Your task to perform on an android device: Add "jbl flip 4" to the cart on bestbuy Image 0: 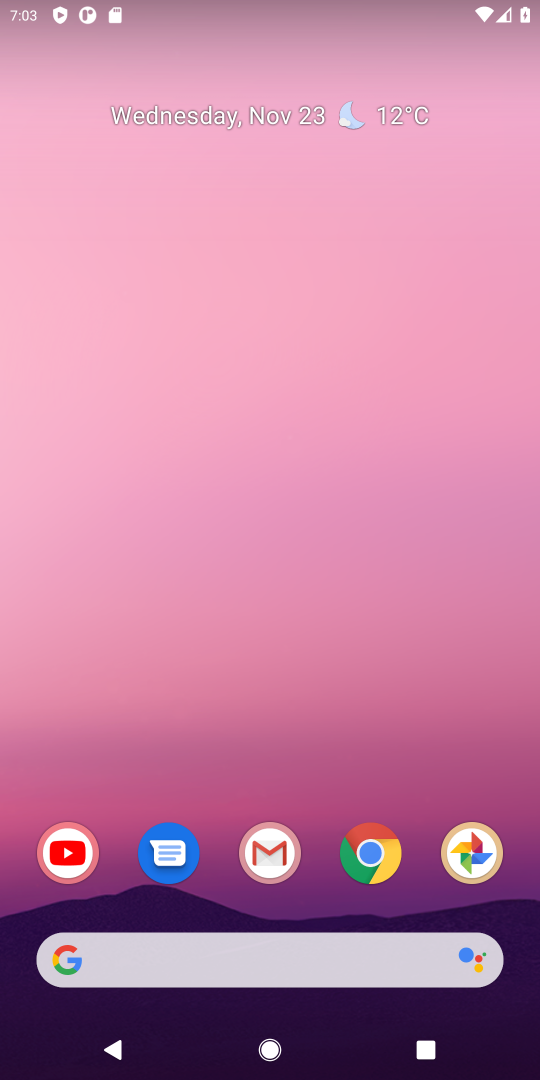
Step 0: click (367, 861)
Your task to perform on an android device: Add "jbl flip 4" to the cart on bestbuy Image 1: 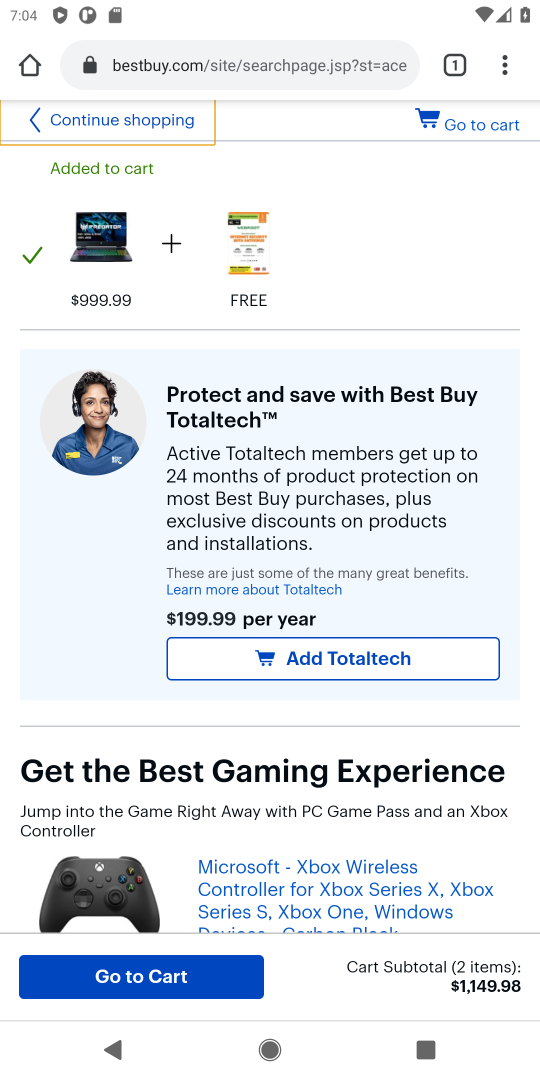
Step 1: drag from (334, 189) to (343, 467)
Your task to perform on an android device: Add "jbl flip 4" to the cart on bestbuy Image 2: 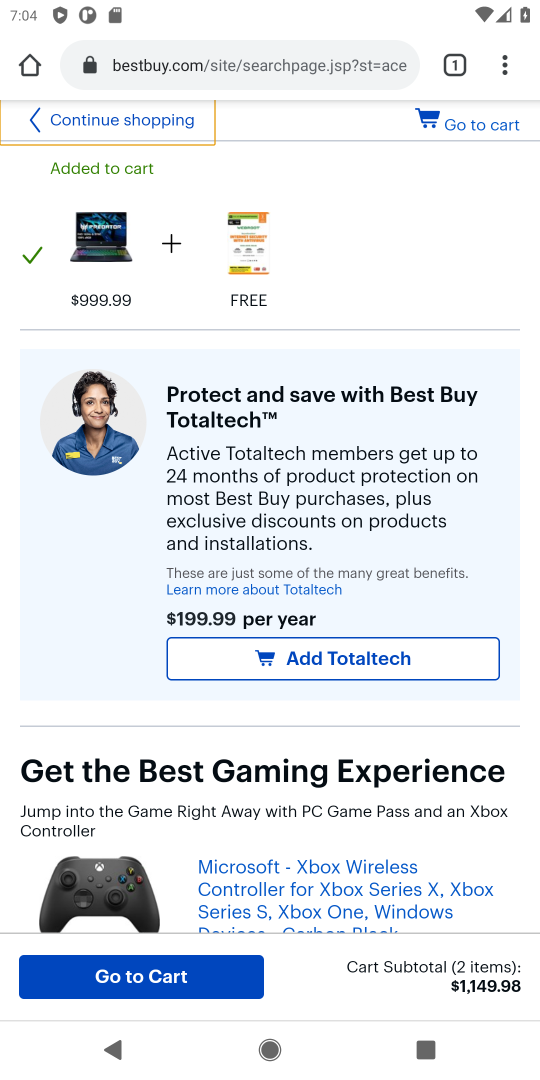
Step 2: click (163, 128)
Your task to perform on an android device: Add "jbl flip 4" to the cart on bestbuy Image 3: 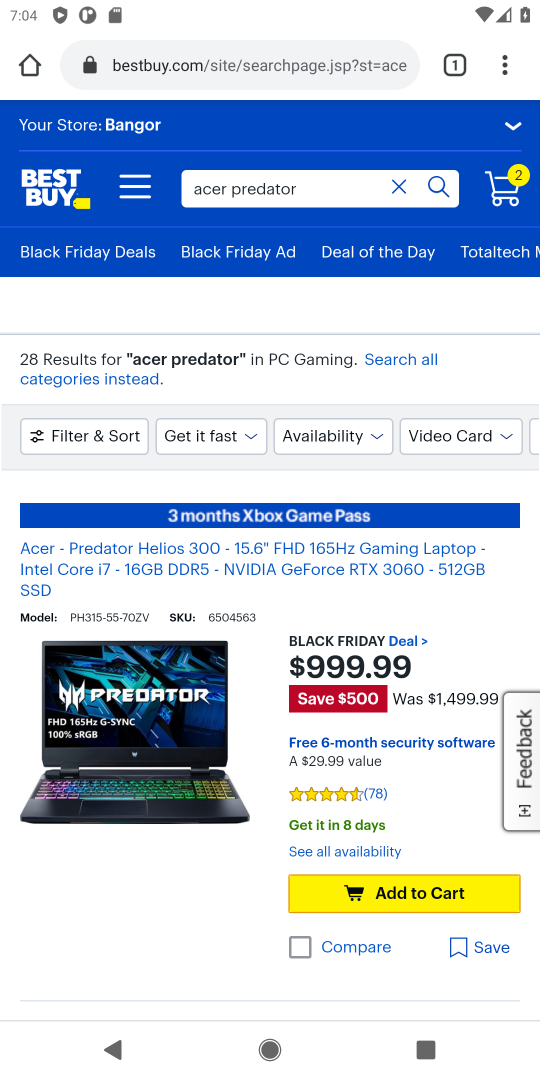
Step 3: click (400, 189)
Your task to perform on an android device: Add "jbl flip 4" to the cart on bestbuy Image 4: 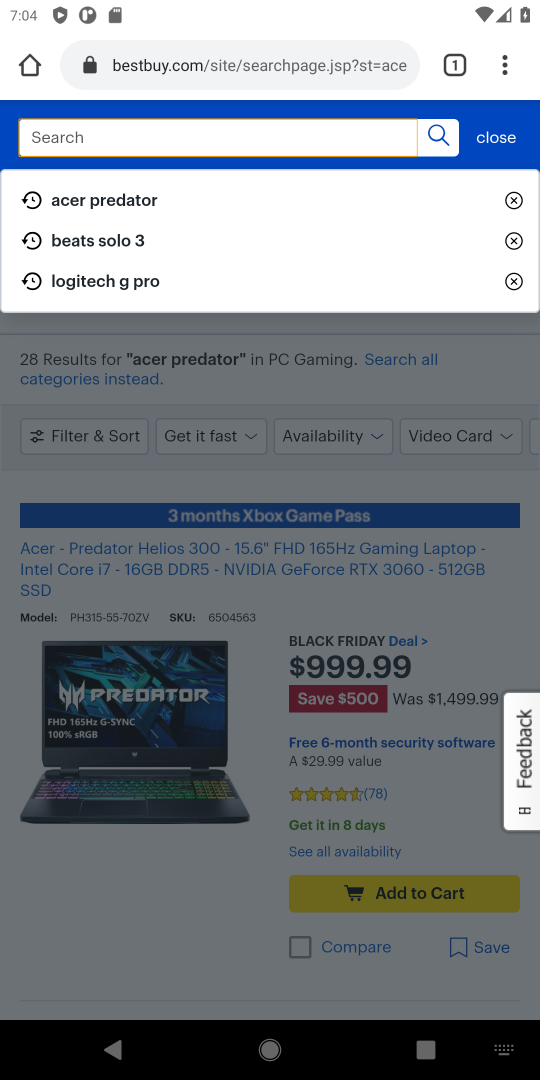
Step 4: type "jbl flip 4"
Your task to perform on an android device: Add "jbl flip 4" to the cart on bestbuy Image 5: 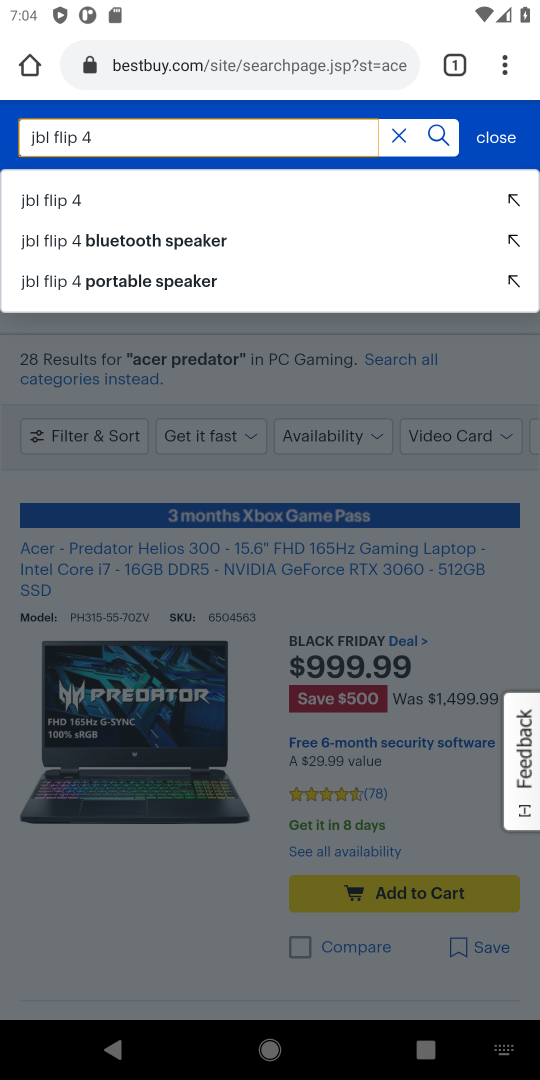
Step 5: click (33, 204)
Your task to perform on an android device: Add "jbl flip 4" to the cart on bestbuy Image 6: 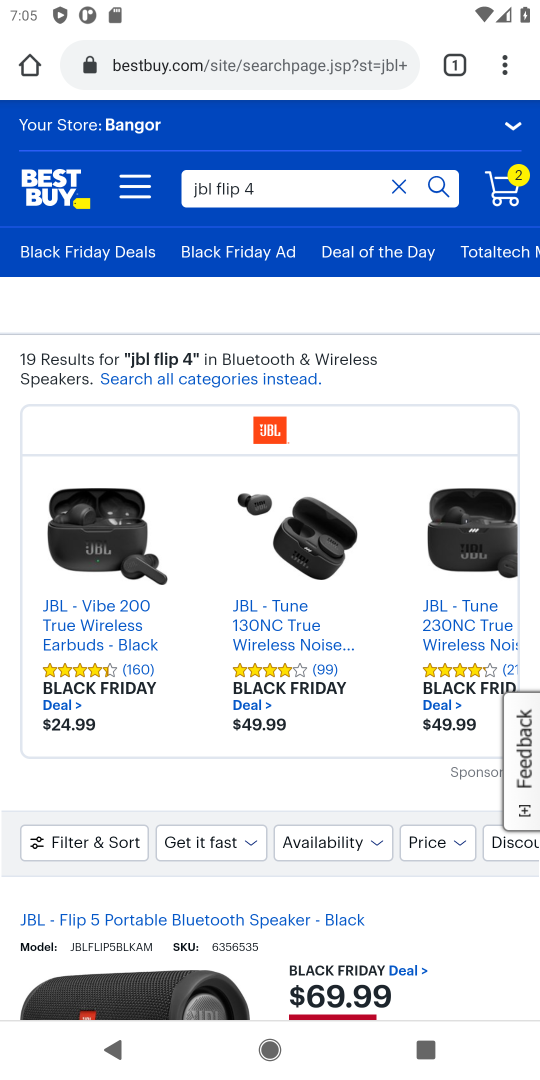
Step 6: task complete